Your task to perform on an android device: refresh tabs in the chrome app Image 0: 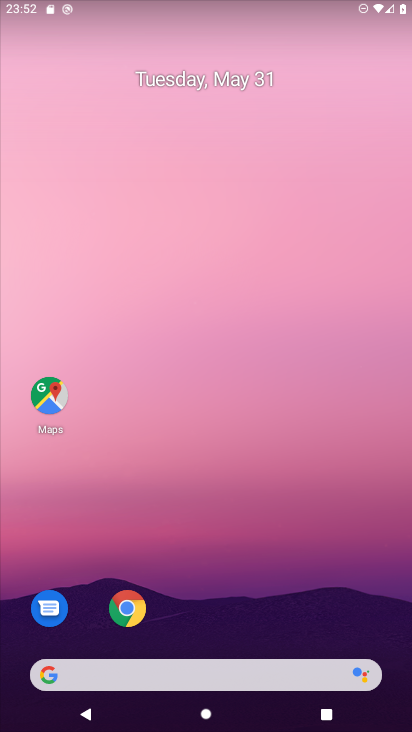
Step 0: click (131, 603)
Your task to perform on an android device: refresh tabs in the chrome app Image 1: 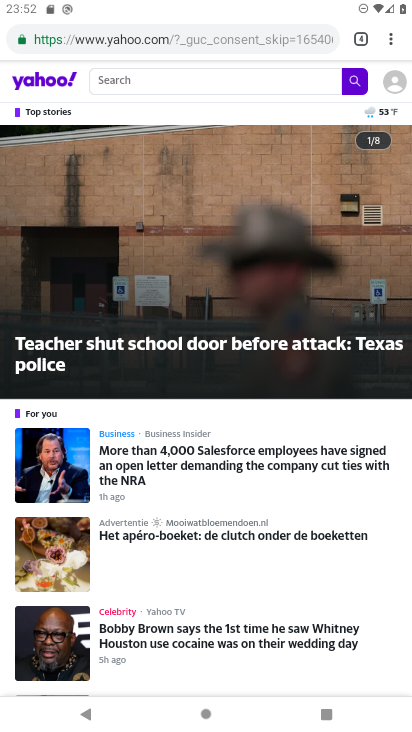
Step 1: click (390, 28)
Your task to perform on an android device: refresh tabs in the chrome app Image 2: 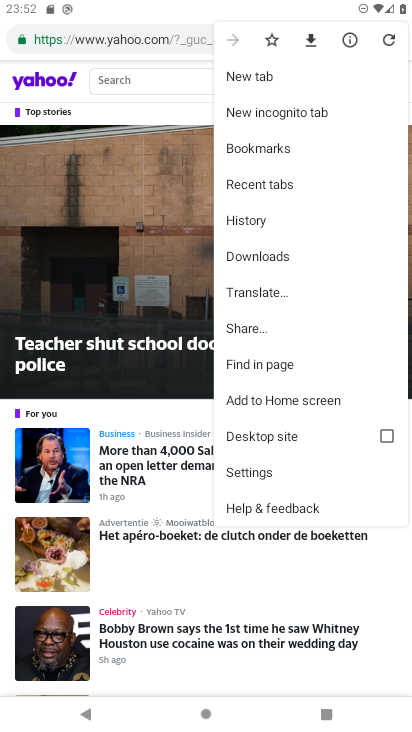
Step 2: click (390, 28)
Your task to perform on an android device: refresh tabs in the chrome app Image 3: 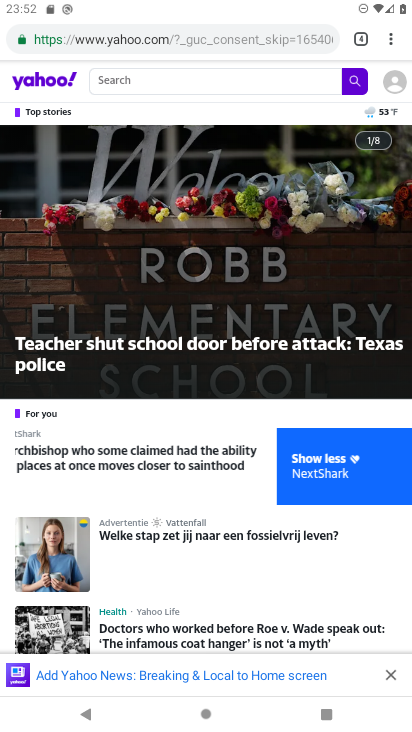
Step 3: task complete